Your task to perform on an android device: Open Yahoo.com Image 0: 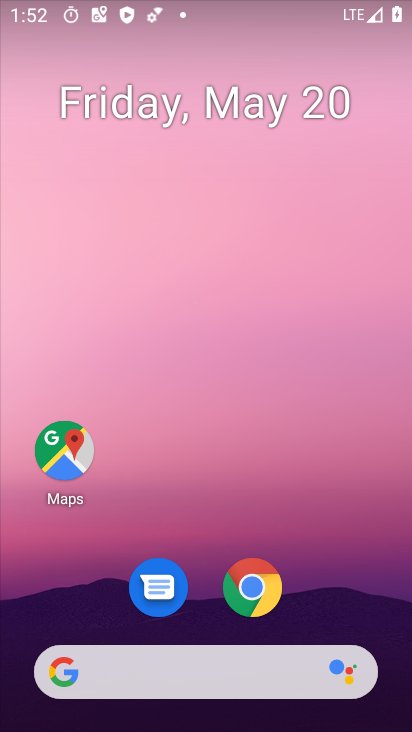
Step 0: click (250, 601)
Your task to perform on an android device: Open Yahoo.com Image 1: 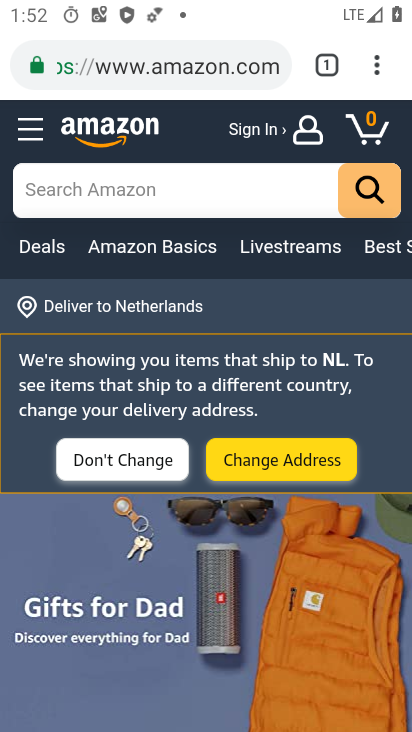
Step 1: click (227, 73)
Your task to perform on an android device: Open Yahoo.com Image 2: 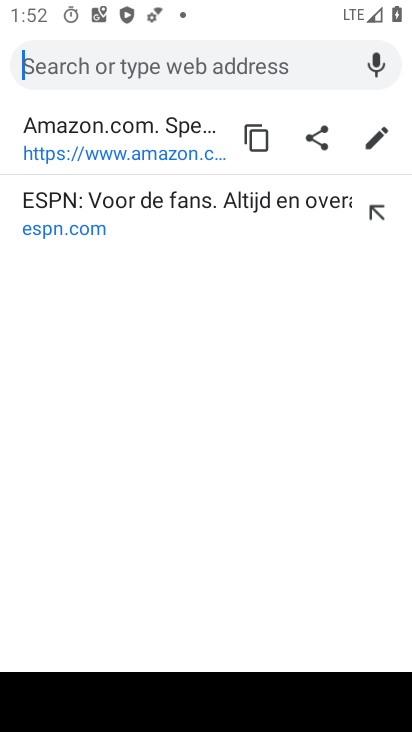
Step 2: type "yahoo.com"
Your task to perform on an android device: Open Yahoo.com Image 3: 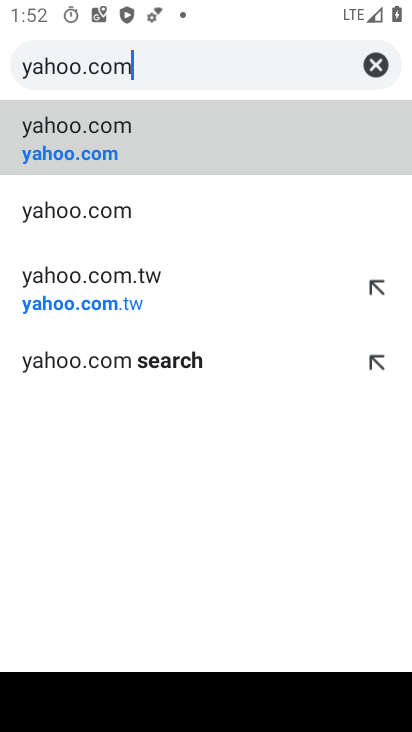
Step 3: click (76, 149)
Your task to perform on an android device: Open Yahoo.com Image 4: 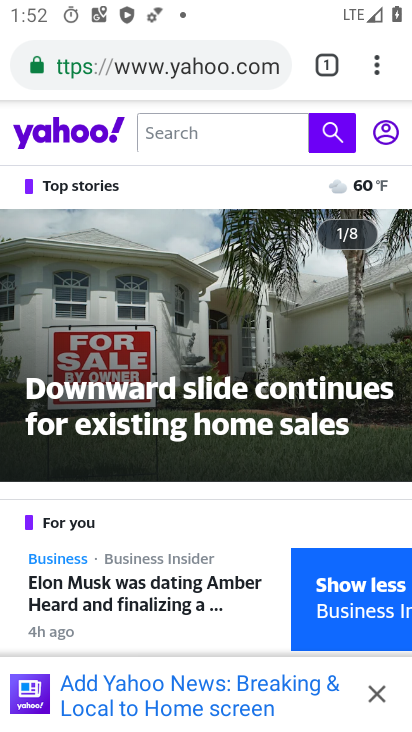
Step 4: task complete